Your task to perform on an android device: turn off sleep mode Image 0: 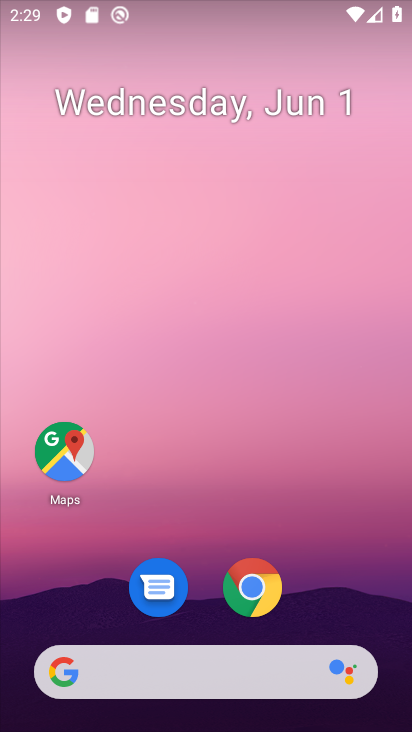
Step 0: drag from (311, 606) to (284, 45)
Your task to perform on an android device: turn off sleep mode Image 1: 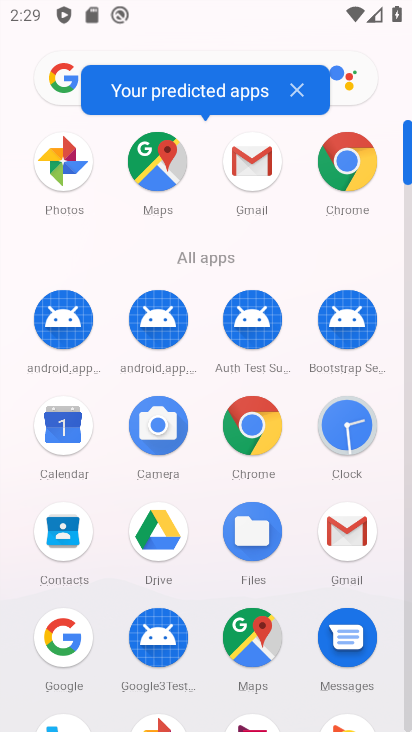
Step 1: drag from (206, 604) to (193, 155)
Your task to perform on an android device: turn off sleep mode Image 2: 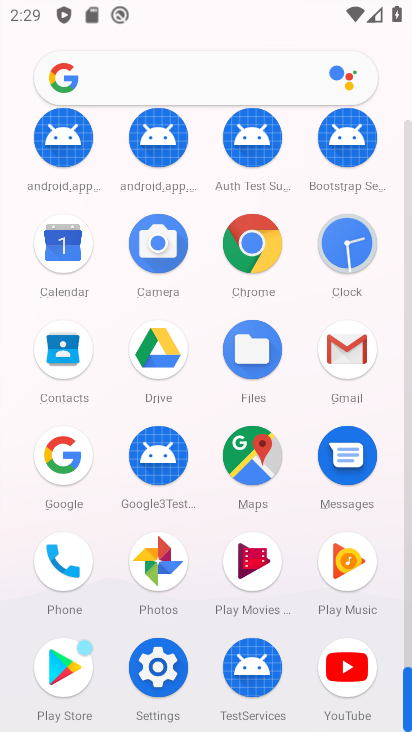
Step 2: click (161, 659)
Your task to perform on an android device: turn off sleep mode Image 3: 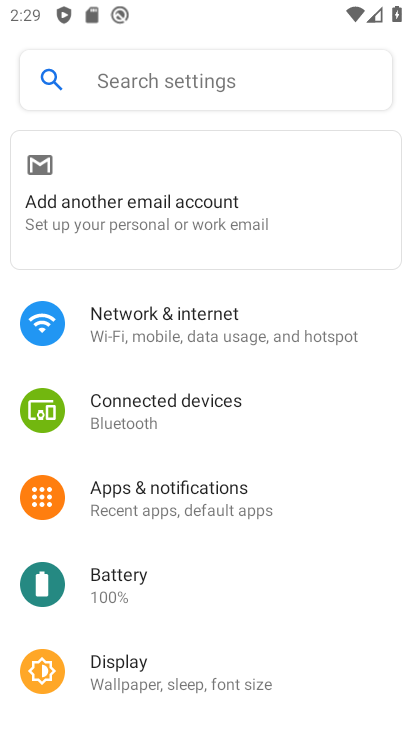
Step 3: drag from (160, 390) to (183, 170)
Your task to perform on an android device: turn off sleep mode Image 4: 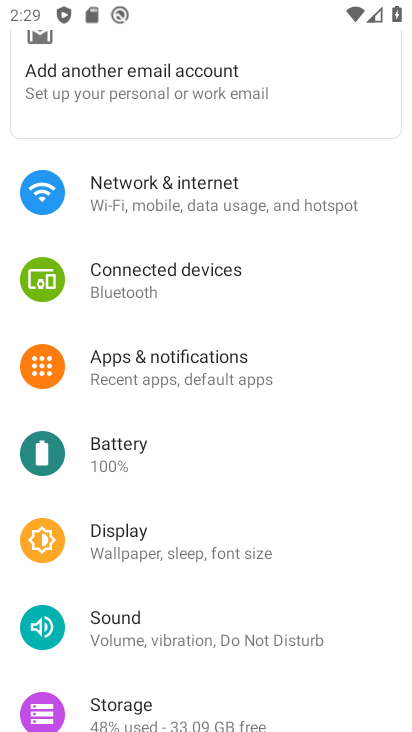
Step 4: click (192, 563)
Your task to perform on an android device: turn off sleep mode Image 5: 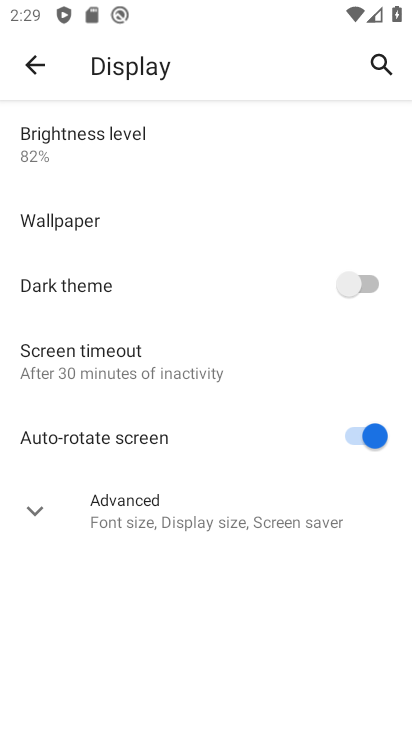
Step 5: click (249, 541)
Your task to perform on an android device: turn off sleep mode Image 6: 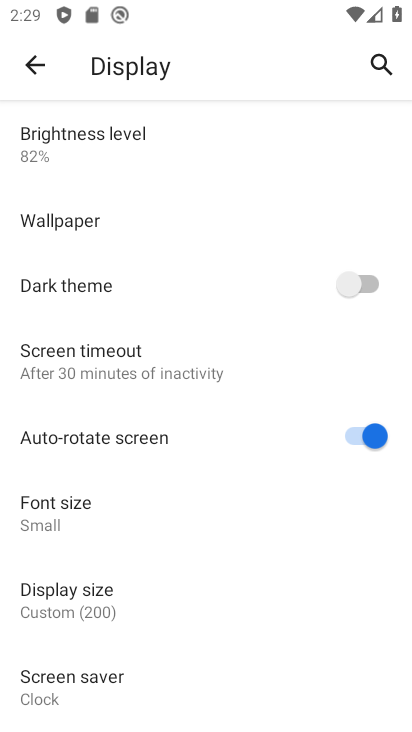
Step 6: task complete